Your task to perform on an android device: Open Google Chrome and open the bookmarks view Image 0: 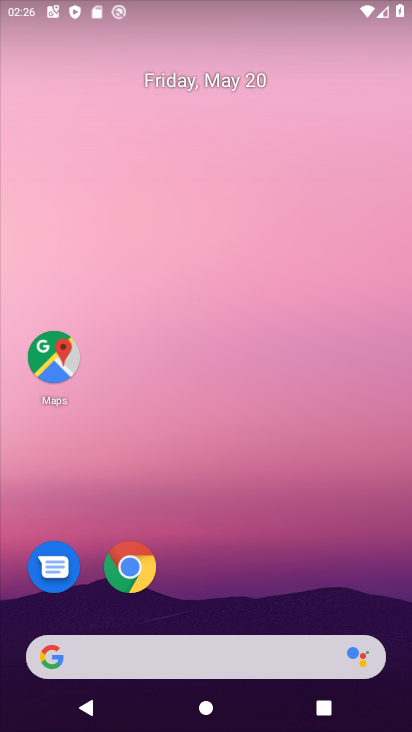
Step 0: drag from (249, 578) to (268, 30)
Your task to perform on an android device: Open Google Chrome and open the bookmarks view Image 1: 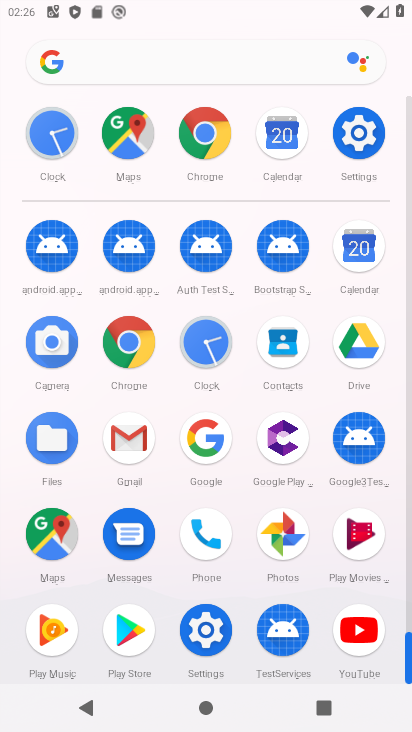
Step 1: click (206, 135)
Your task to perform on an android device: Open Google Chrome and open the bookmarks view Image 2: 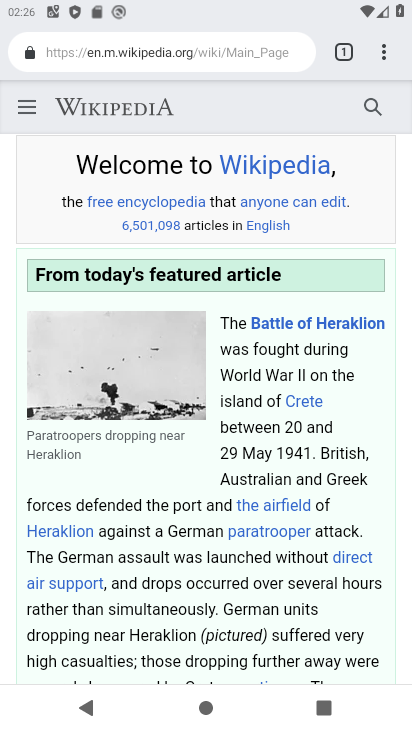
Step 2: task complete